Your task to perform on an android device: toggle wifi Image 0: 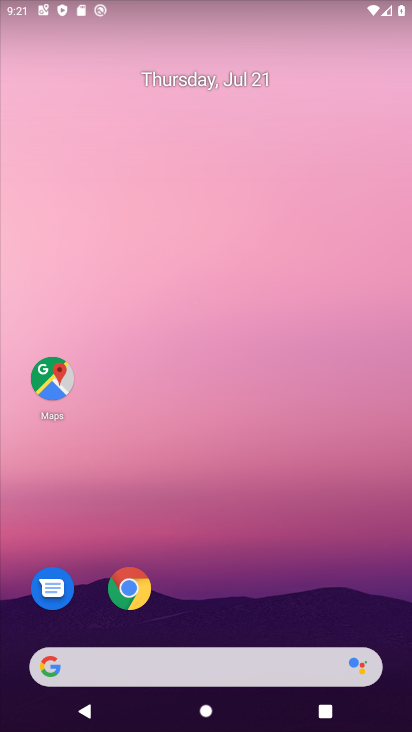
Step 0: drag from (395, 680) to (293, 60)
Your task to perform on an android device: toggle wifi Image 1: 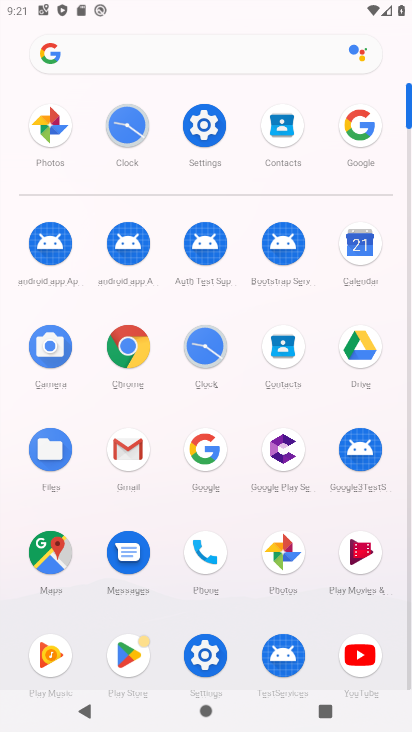
Step 1: click (193, 634)
Your task to perform on an android device: toggle wifi Image 2: 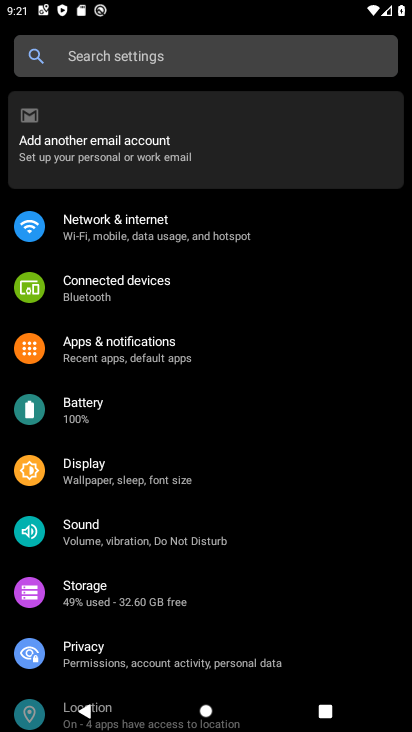
Step 2: click (117, 222)
Your task to perform on an android device: toggle wifi Image 3: 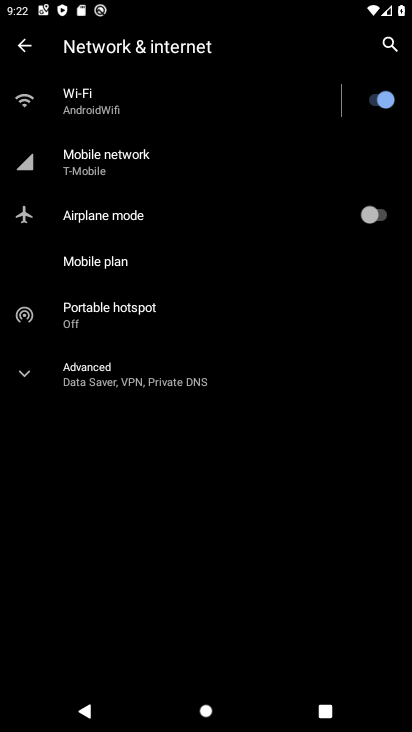
Step 3: click (373, 101)
Your task to perform on an android device: toggle wifi Image 4: 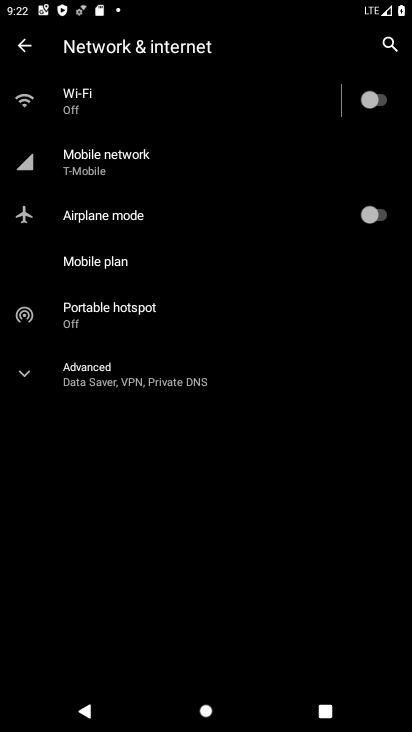
Step 4: task complete